Your task to perform on an android device: turn off javascript in the chrome app Image 0: 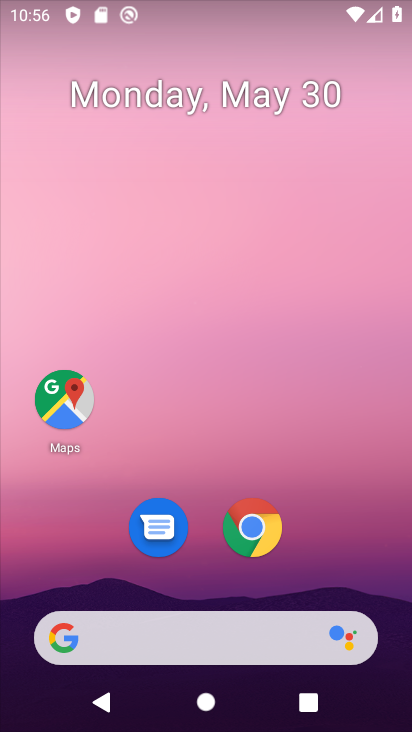
Step 0: drag from (357, 565) to (374, 173)
Your task to perform on an android device: turn off javascript in the chrome app Image 1: 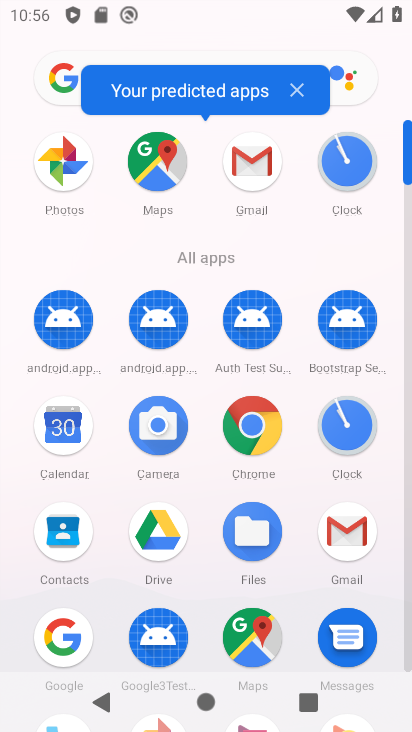
Step 1: click (237, 452)
Your task to perform on an android device: turn off javascript in the chrome app Image 2: 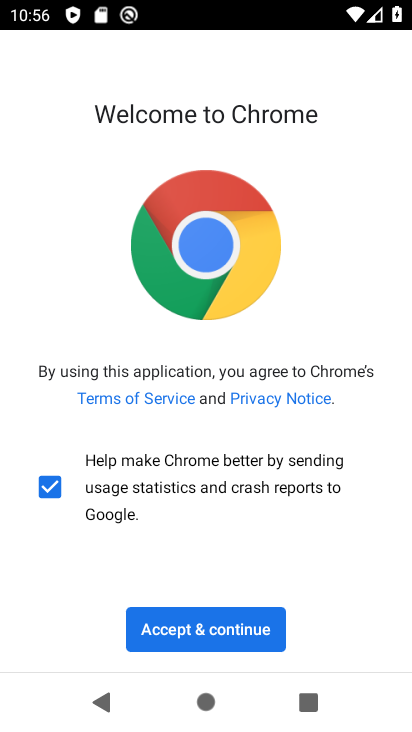
Step 2: click (251, 626)
Your task to perform on an android device: turn off javascript in the chrome app Image 3: 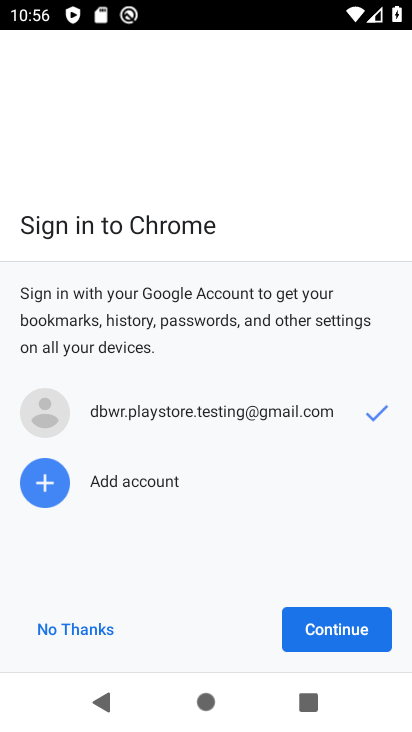
Step 3: click (343, 642)
Your task to perform on an android device: turn off javascript in the chrome app Image 4: 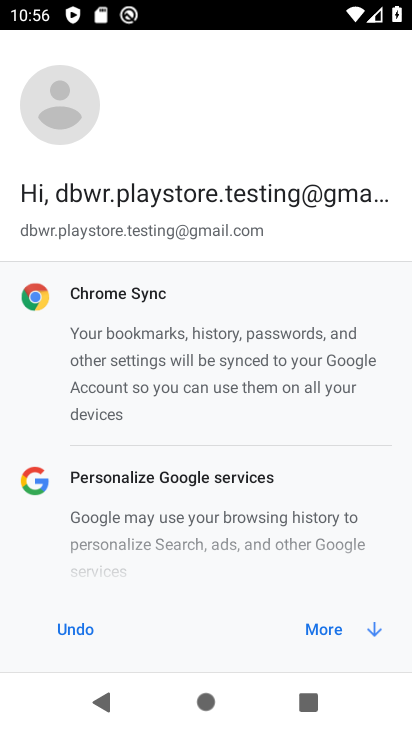
Step 4: click (343, 640)
Your task to perform on an android device: turn off javascript in the chrome app Image 5: 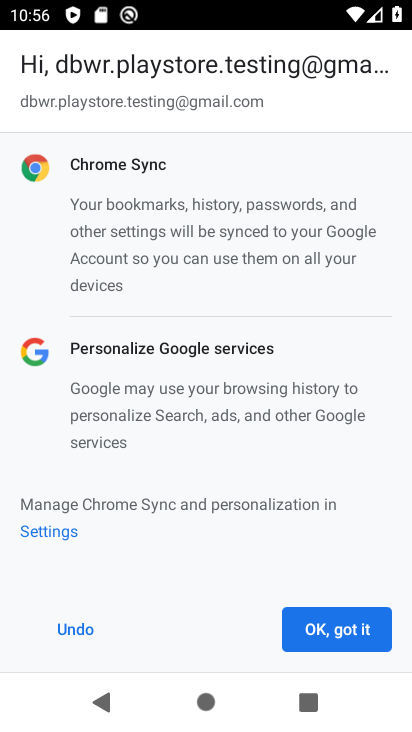
Step 5: click (341, 639)
Your task to perform on an android device: turn off javascript in the chrome app Image 6: 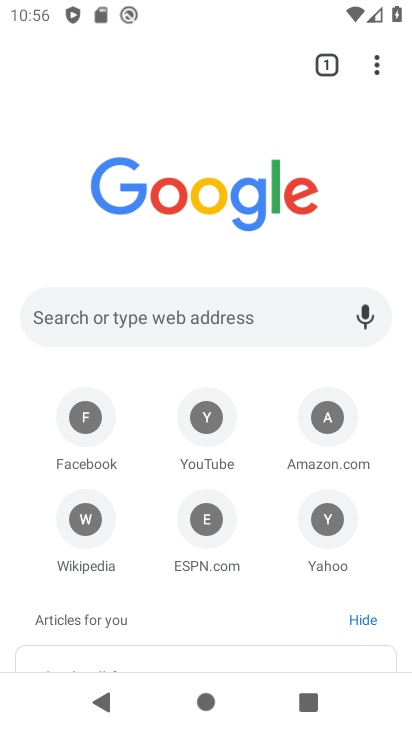
Step 6: drag from (377, 76) to (150, 549)
Your task to perform on an android device: turn off javascript in the chrome app Image 7: 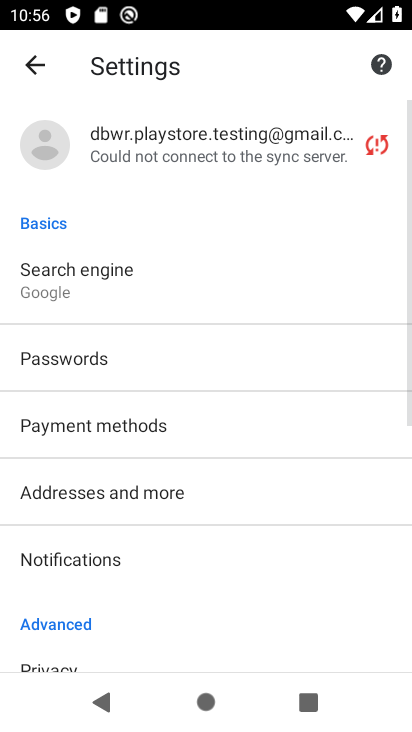
Step 7: drag from (281, 612) to (305, 246)
Your task to perform on an android device: turn off javascript in the chrome app Image 8: 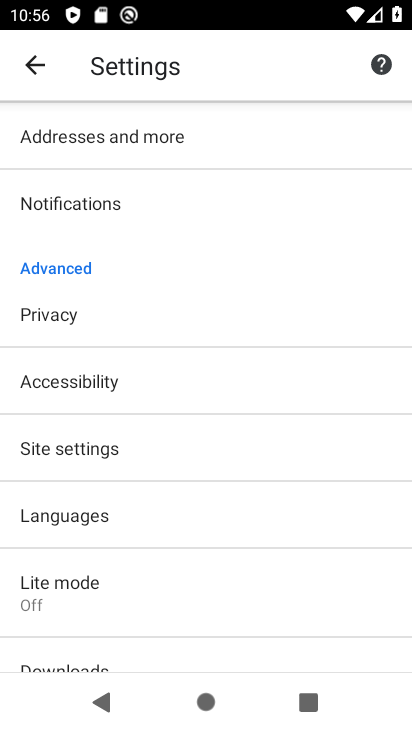
Step 8: click (197, 457)
Your task to perform on an android device: turn off javascript in the chrome app Image 9: 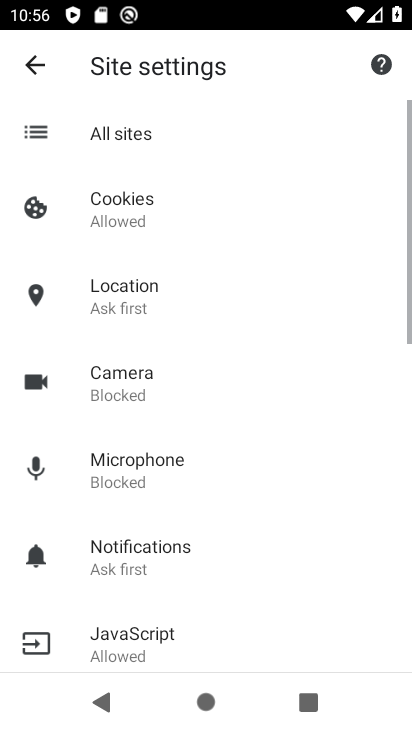
Step 9: drag from (256, 632) to (238, 262)
Your task to perform on an android device: turn off javascript in the chrome app Image 10: 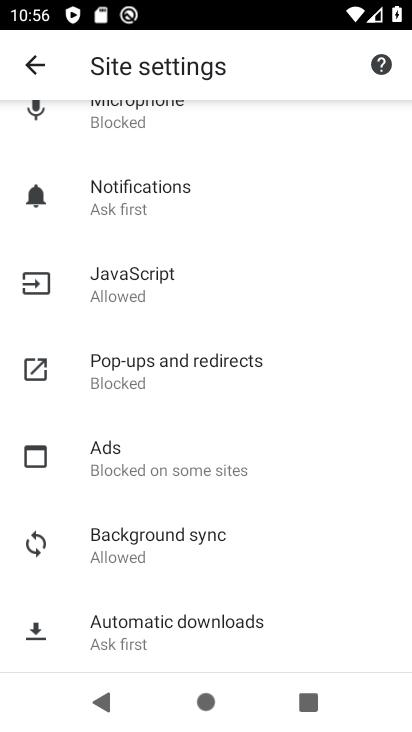
Step 10: click (210, 305)
Your task to perform on an android device: turn off javascript in the chrome app Image 11: 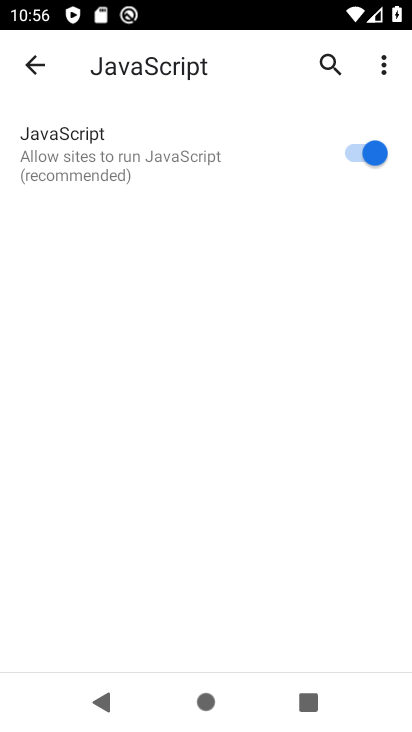
Step 11: click (354, 156)
Your task to perform on an android device: turn off javascript in the chrome app Image 12: 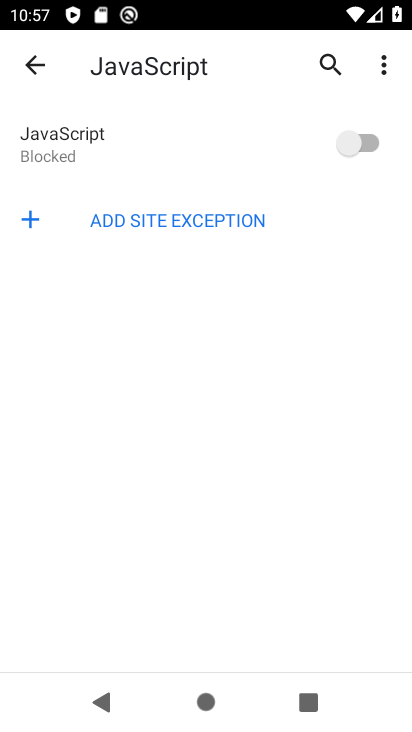
Step 12: task complete